Your task to perform on an android device: choose inbox layout in the gmail app Image 0: 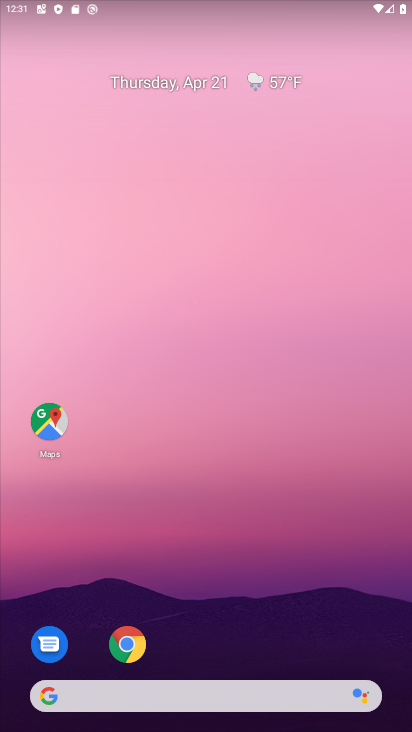
Step 0: drag from (228, 685) to (190, 76)
Your task to perform on an android device: choose inbox layout in the gmail app Image 1: 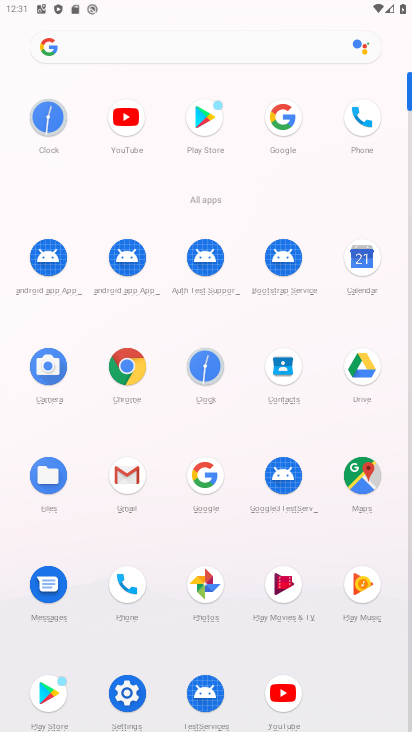
Step 1: click (123, 474)
Your task to perform on an android device: choose inbox layout in the gmail app Image 2: 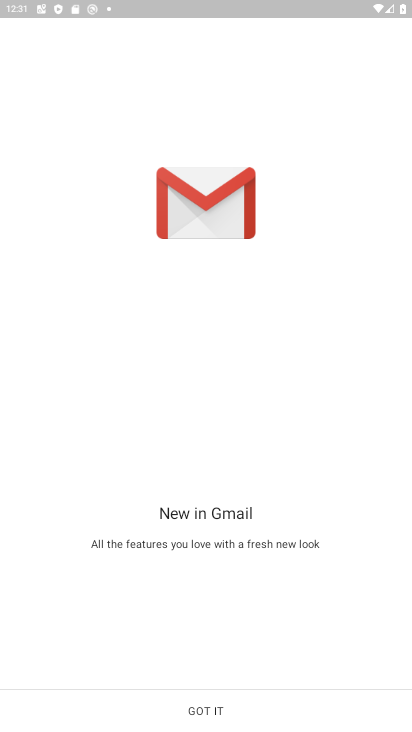
Step 2: click (214, 709)
Your task to perform on an android device: choose inbox layout in the gmail app Image 3: 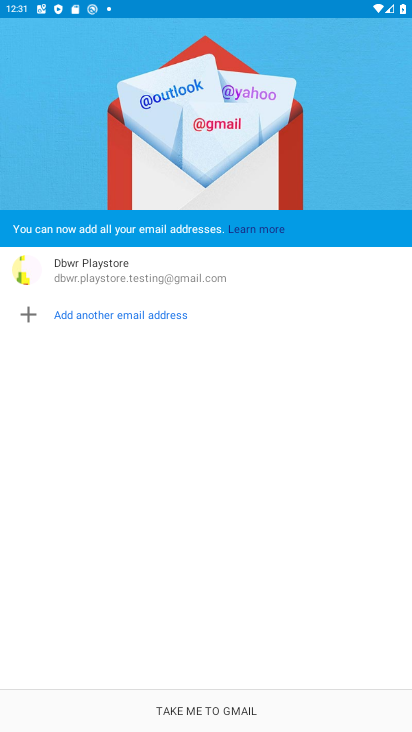
Step 3: click (206, 710)
Your task to perform on an android device: choose inbox layout in the gmail app Image 4: 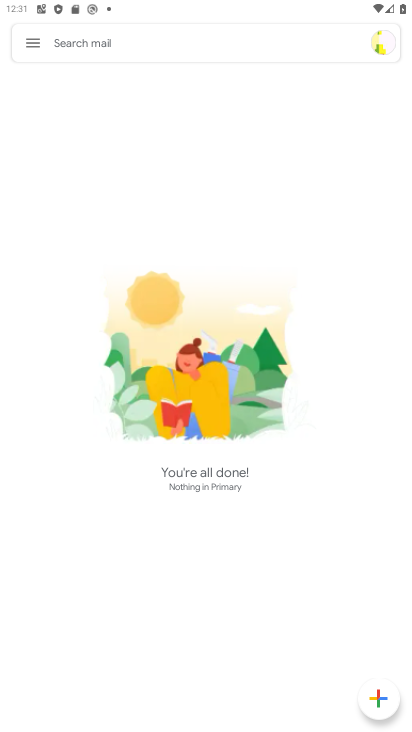
Step 4: click (35, 39)
Your task to perform on an android device: choose inbox layout in the gmail app Image 5: 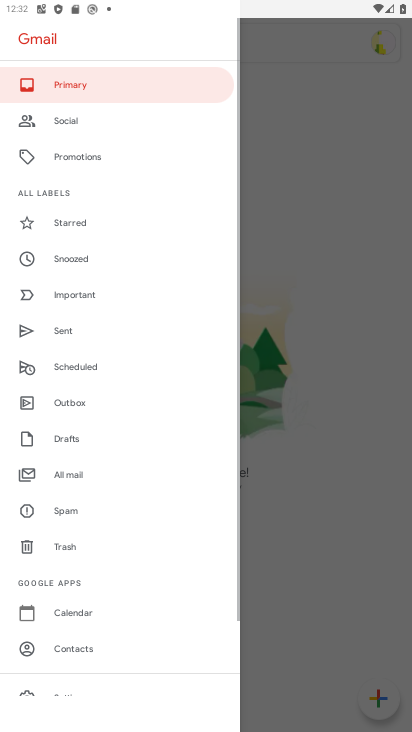
Step 5: drag from (119, 619) to (100, 120)
Your task to perform on an android device: choose inbox layout in the gmail app Image 6: 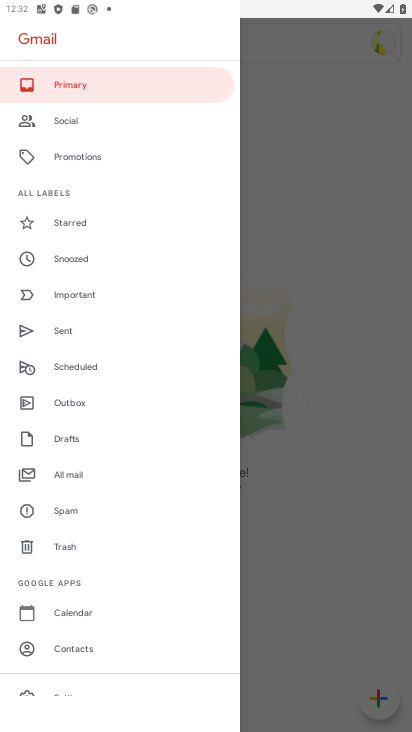
Step 6: drag from (60, 689) to (81, 247)
Your task to perform on an android device: choose inbox layout in the gmail app Image 7: 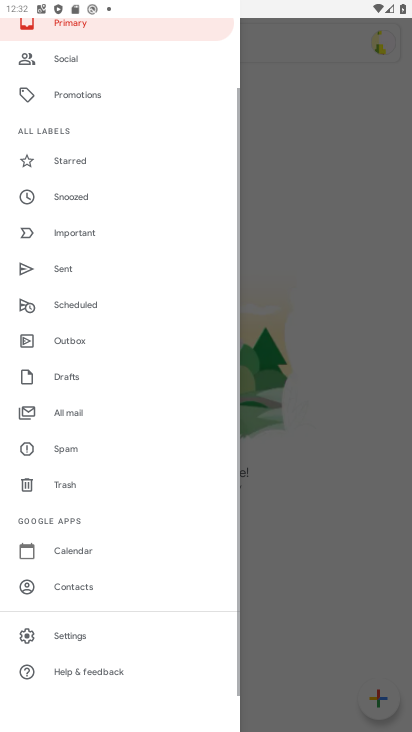
Step 7: click (54, 633)
Your task to perform on an android device: choose inbox layout in the gmail app Image 8: 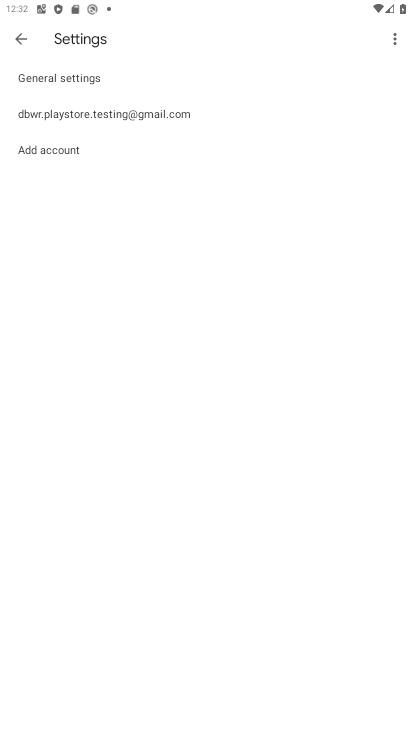
Step 8: click (47, 110)
Your task to perform on an android device: choose inbox layout in the gmail app Image 9: 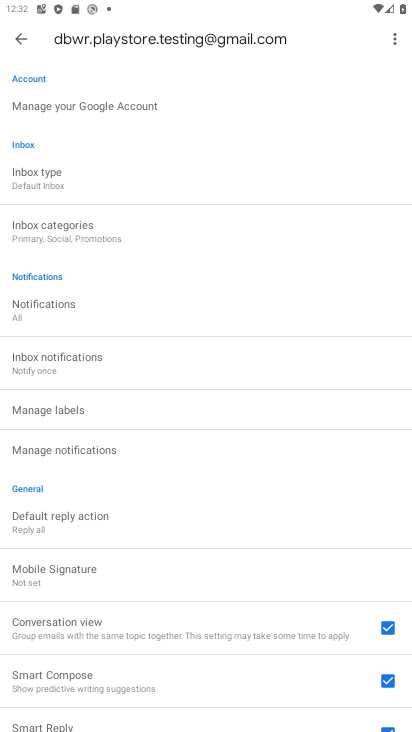
Step 9: click (60, 183)
Your task to perform on an android device: choose inbox layout in the gmail app Image 10: 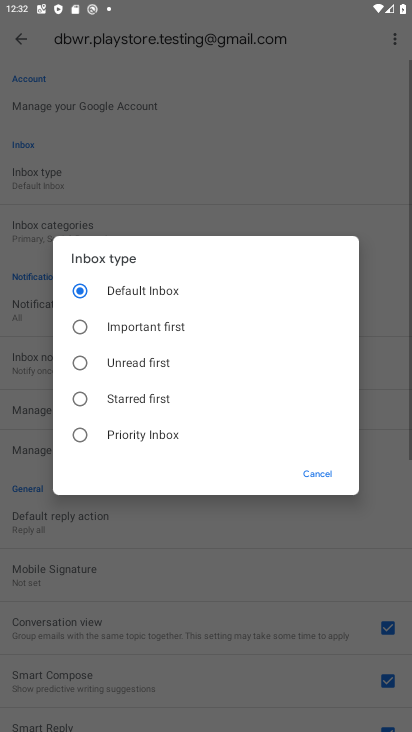
Step 10: click (111, 446)
Your task to perform on an android device: choose inbox layout in the gmail app Image 11: 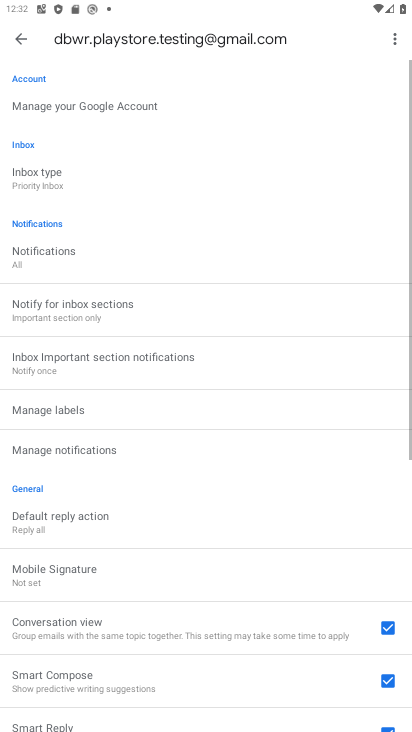
Step 11: click (29, 40)
Your task to perform on an android device: choose inbox layout in the gmail app Image 12: 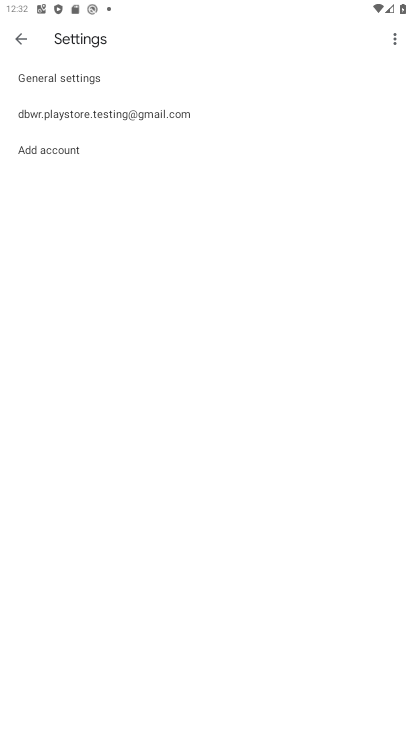
Step 12: click (29, 40)
Your task to perform on an android device: choose inbox layout in the gmail app Image 13: 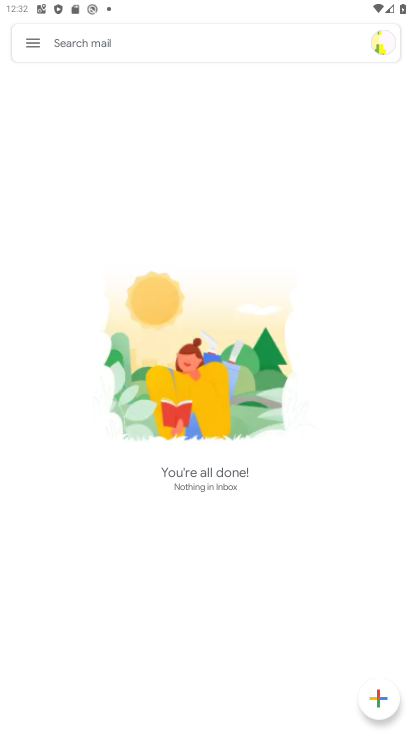
Step 13: task complete